Your task to perform on an android device: Clear the shopping cart on bestbuy. Add "razer thresher" to the cart on bestbuy, then select checkout. Image 0: 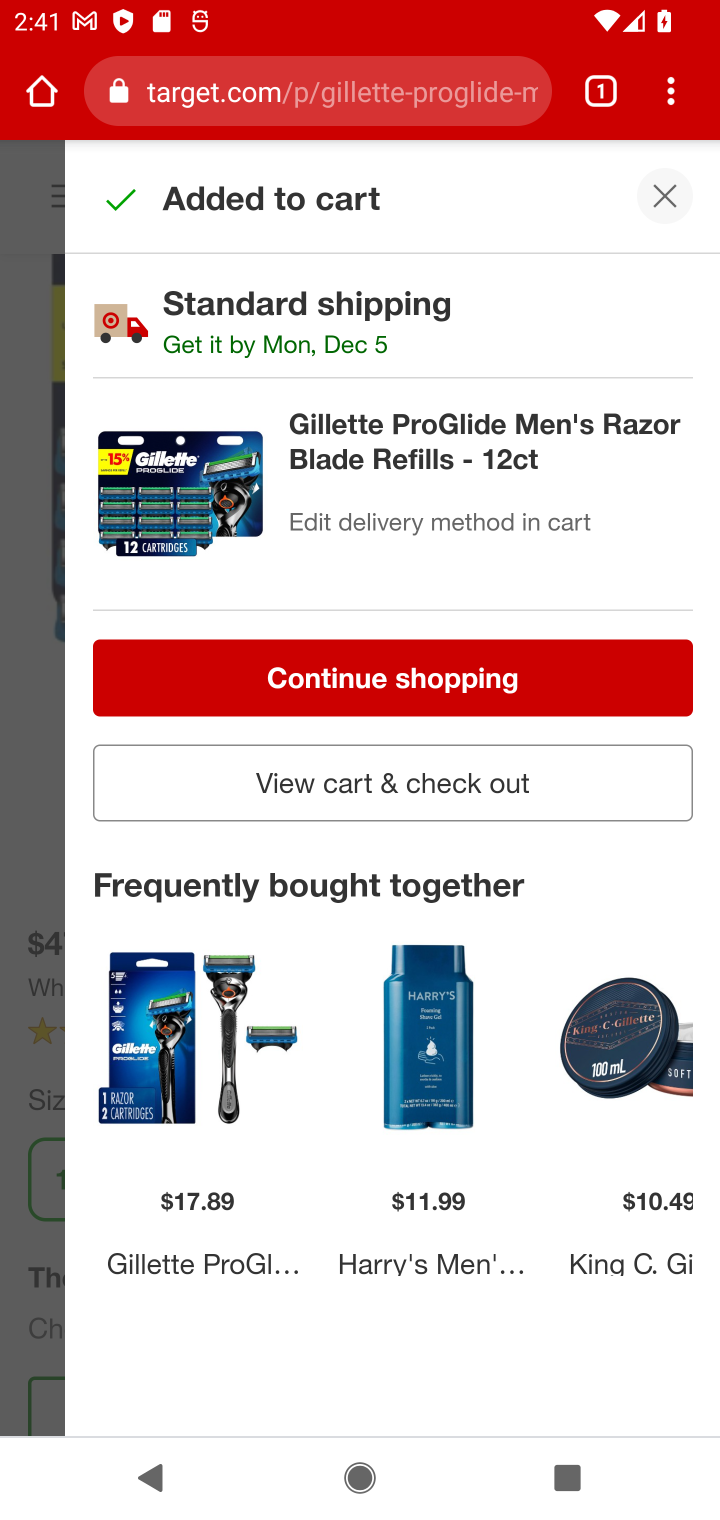
Step 0: press home button
Your task to perform on an android device: Clear the shopping cart on bestbuy. Add "razer thresher" to the cart on bestbuy, then select checkout. Image 1: 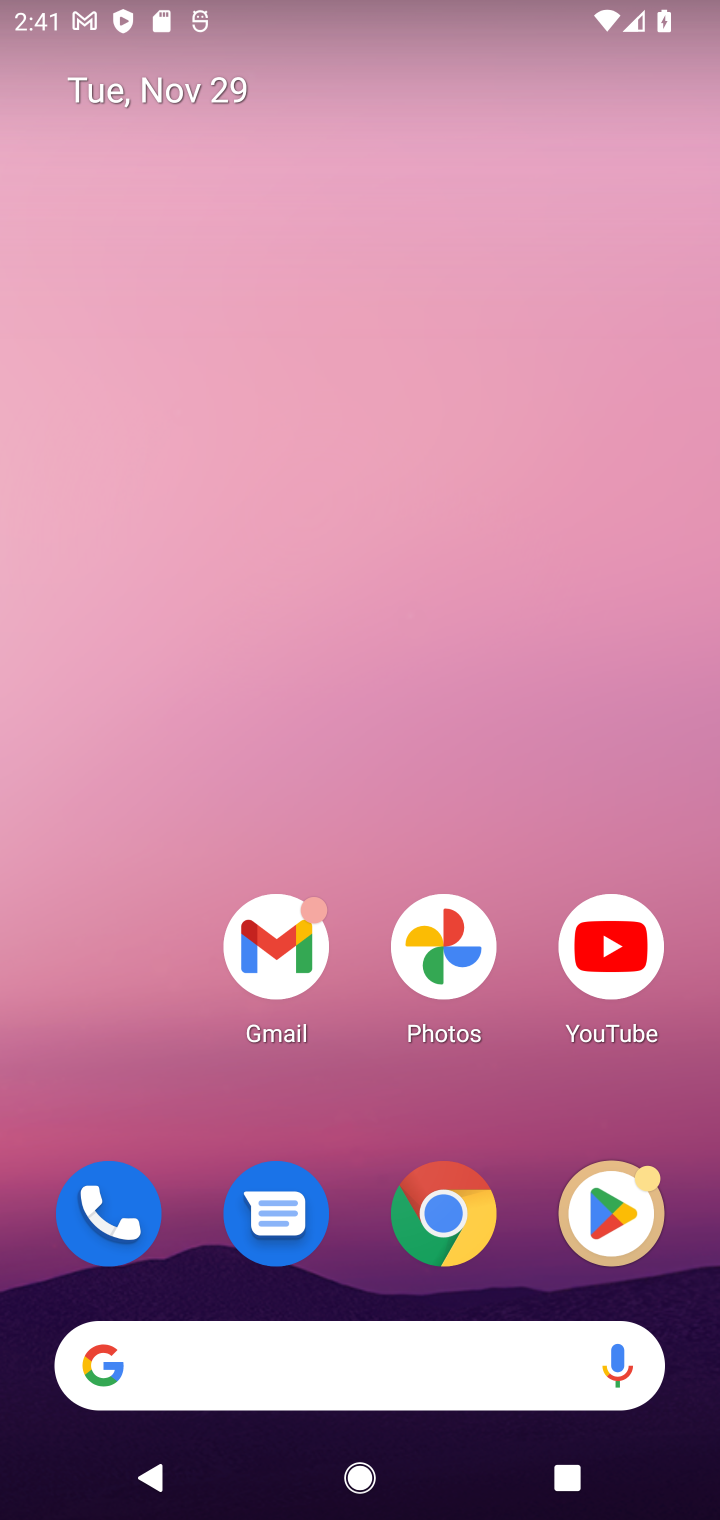
Step 1: click (296, 1355)
Your task to perform on an android device: Clear the shopping cart on bestbuy. Add "razer thresher" to the cart on bestbuy, then select checkout. Image 2: 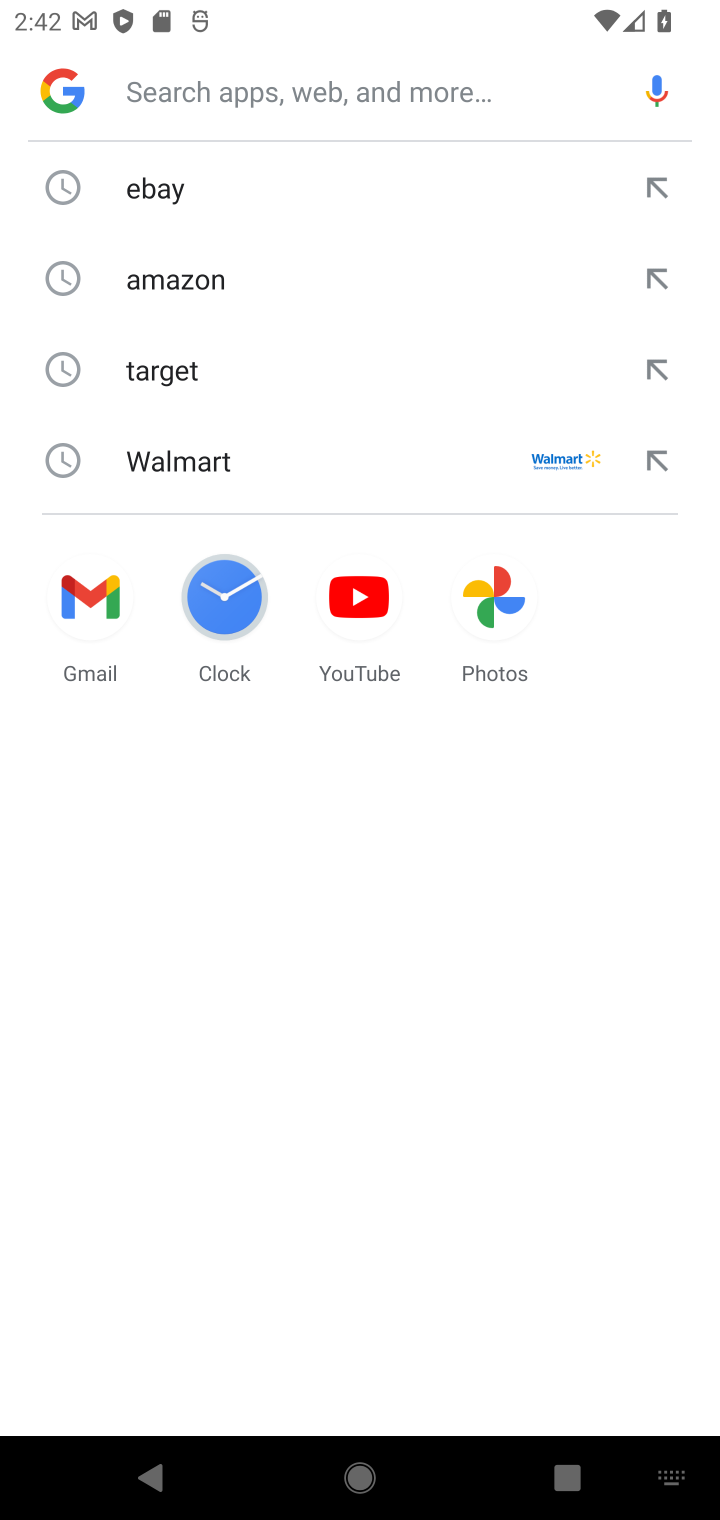
Step 2: type "bestbuy.com"
Your task to perform on an android device: Clear the shopping cart on bestbuy. Add "razer thresher" to the cart on bestbuy, then select checkout. Image 3: 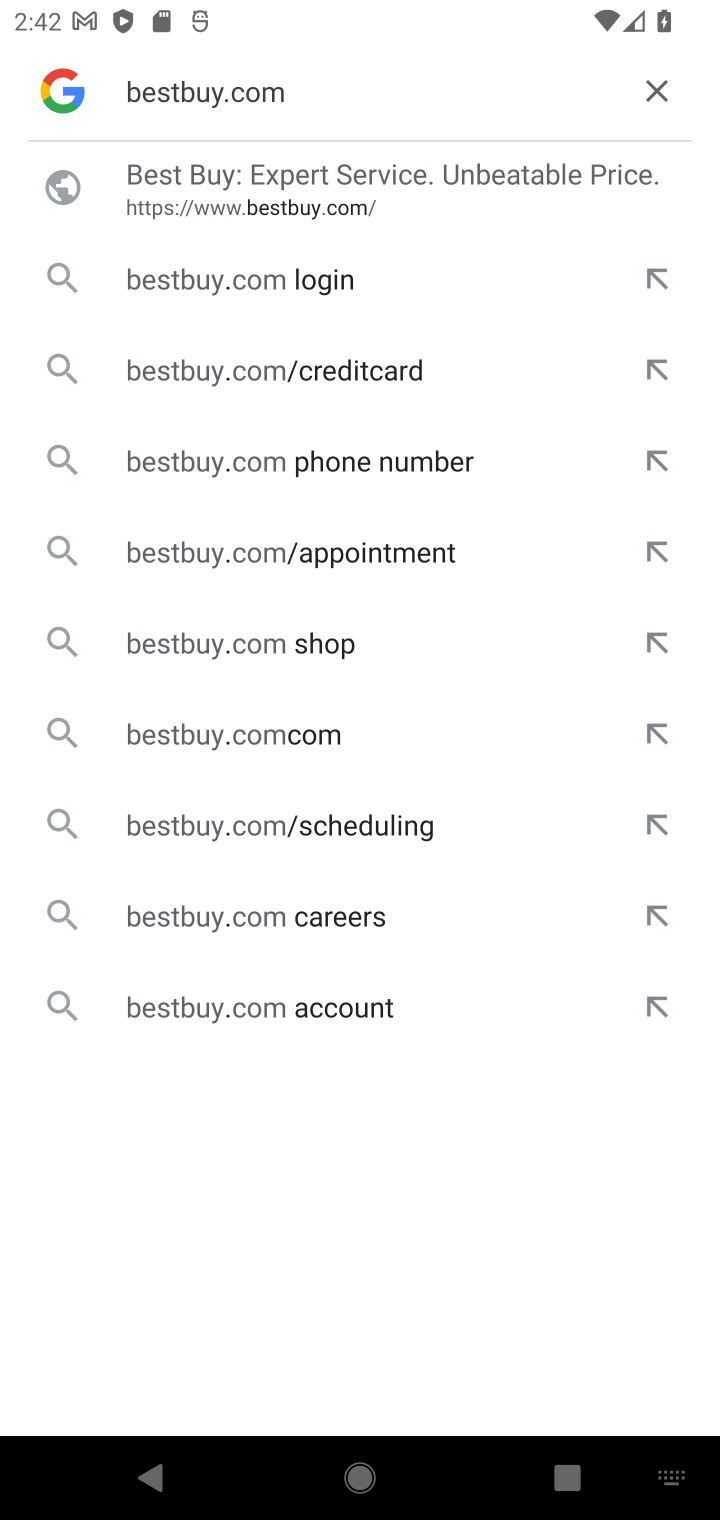
Step 3: click (297, 192)
Your task to perform on an android device: Clear the shopping cart on bestbuy. Add "razer thresher" to the cart on bestbuy, then select checkout. Image 4: 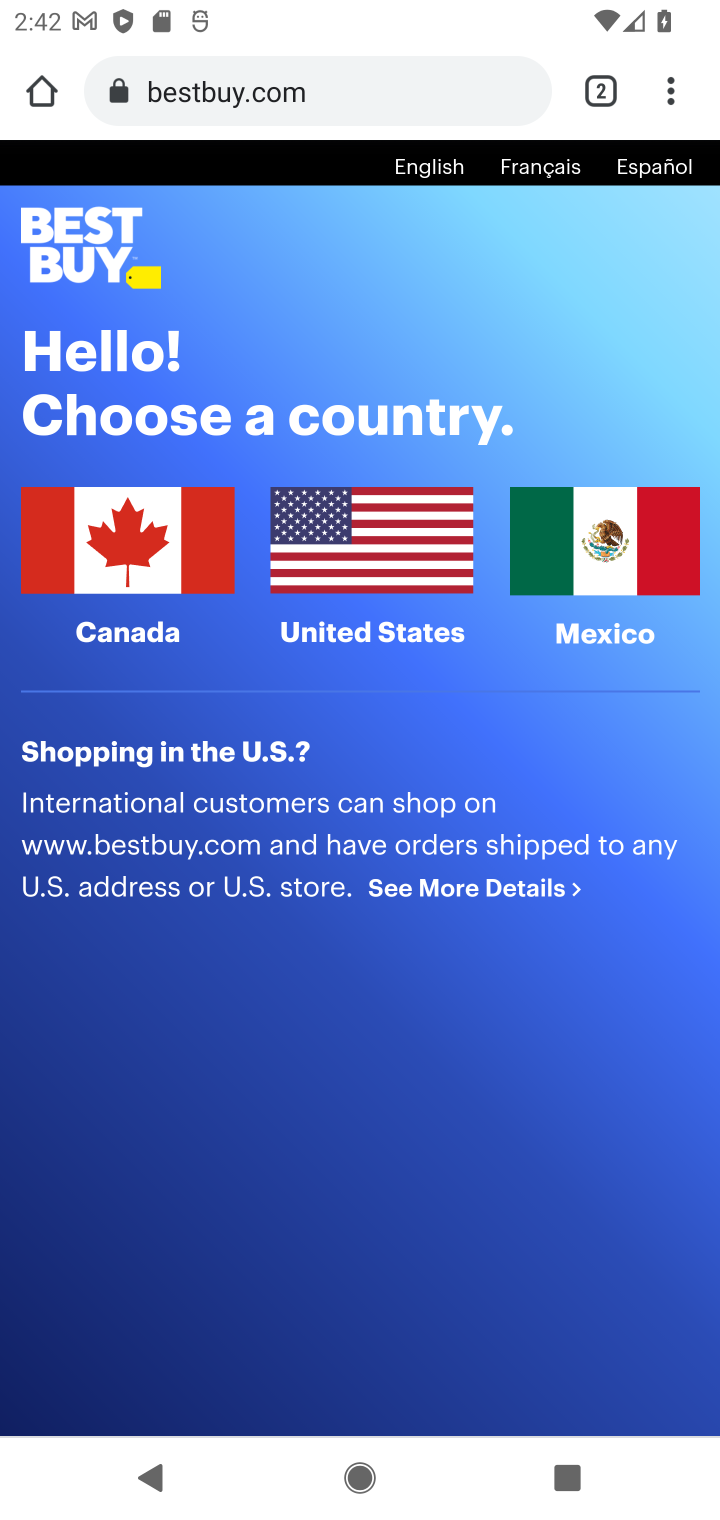
Step 4: click (401, 573)
Your task to perform on an android device: Clear the shopping cart on bestbuy. Add "razer thresher" to the cart on bestbuy, then select checkout. Image 5: 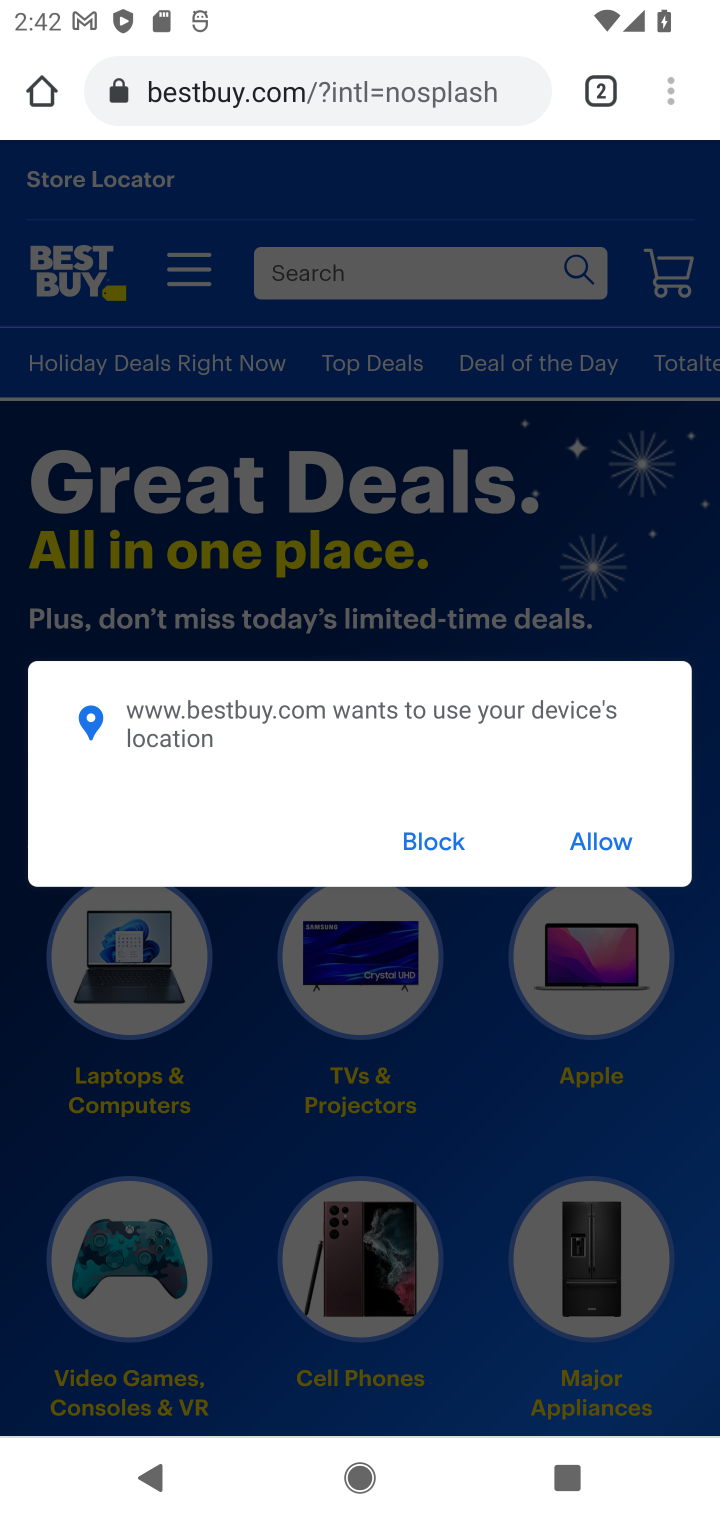
Step 5: click (627, 847)
Your task to perform on an android device: Clear the shopping cart on bestbuy. Add "razer thresher" to the cart on bestbuy, then select checkout. Image 6: 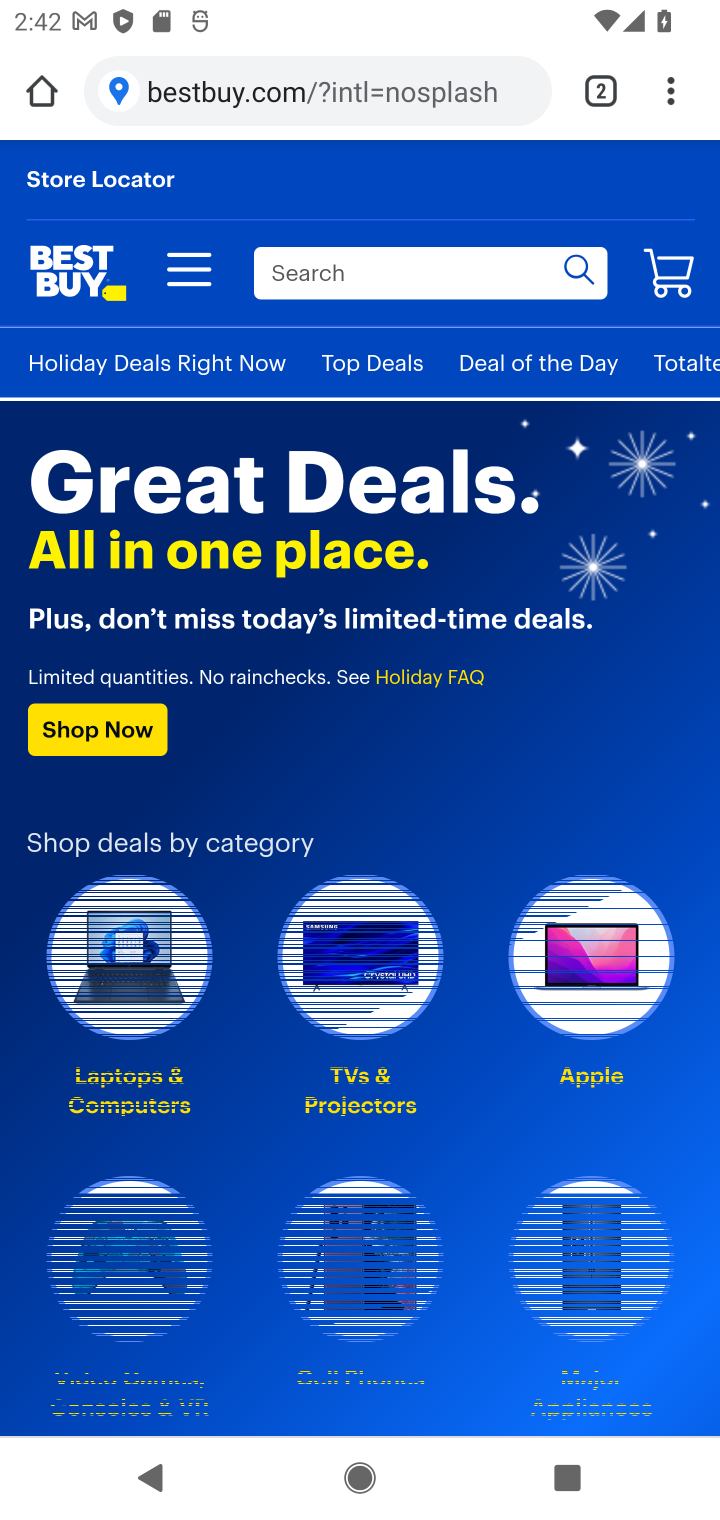
Step 6: click (687, 281)
Your task to perform on an android device: Clear the shopping cart on bestbuy. Add "razer thresher" to the cart on bestbuy, then select checkout. Image 7: 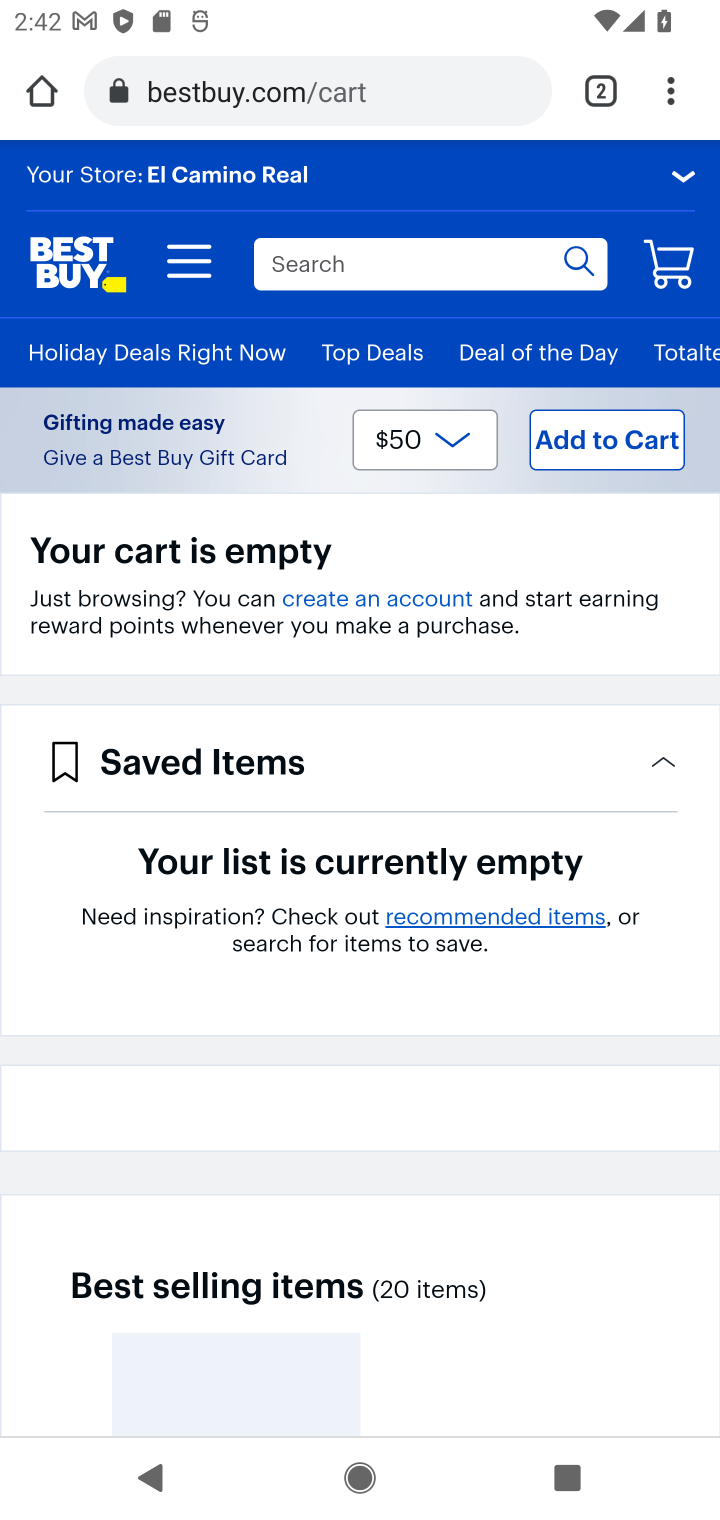
Step 7: task complete